Your task to perform on an android device: Search for hotels in Boston Image 0: 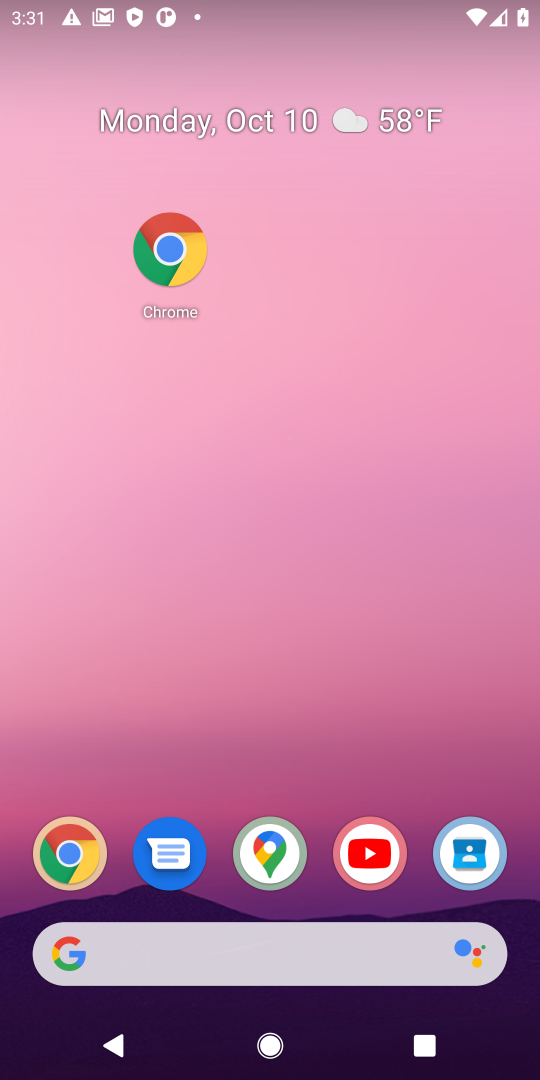
Step 0: click (66, 860)
Your task to perform on an android device: Search for hotels in Boston Image 1: 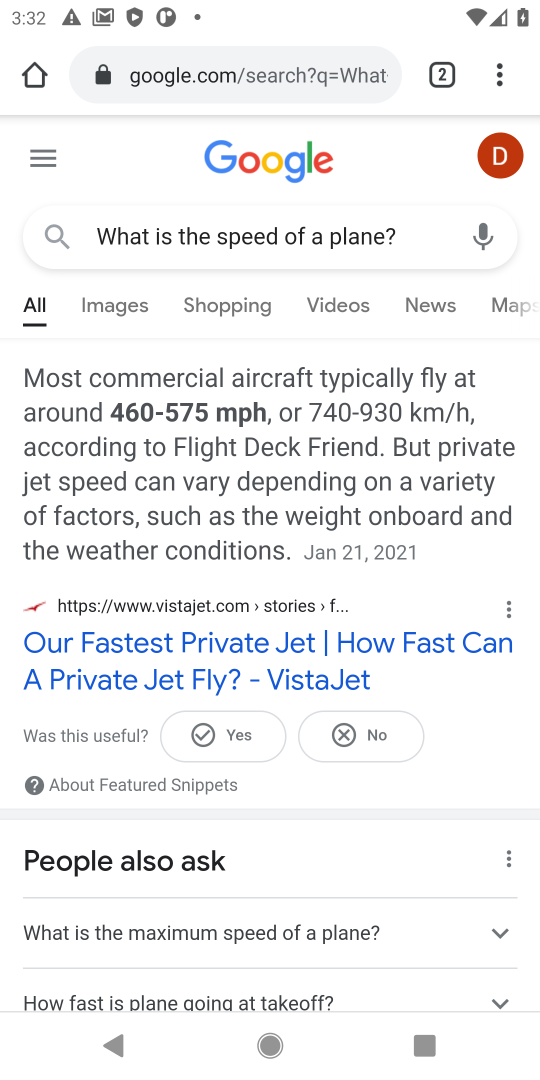
Step 1: click (300, 76)
Your task to perform on an android device: Search for hotels in Boston Image 2: 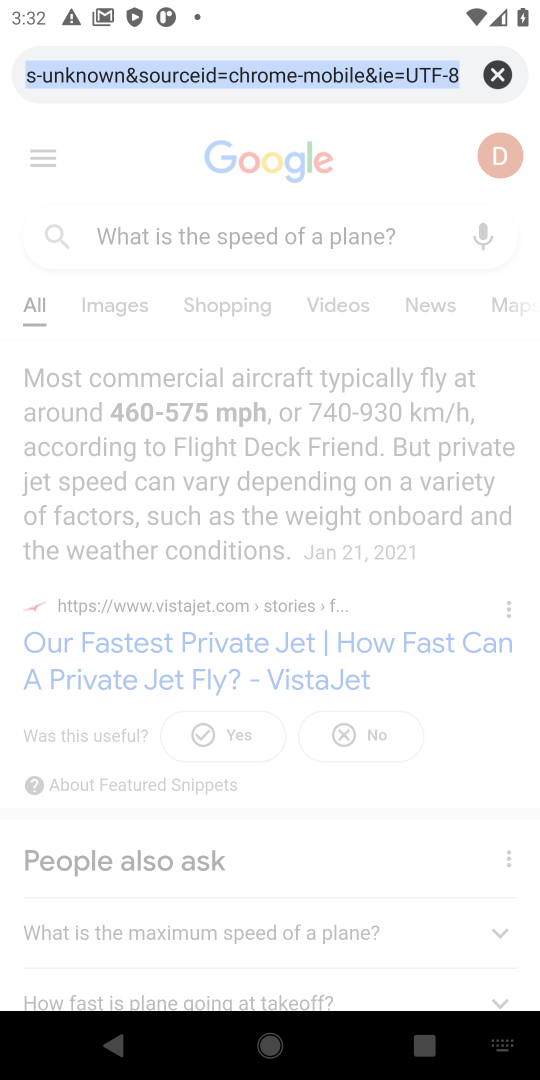
Step 2: type " hotels in Boston"
Your task to perform on an android device: Search for hotels in Boston Image 3: 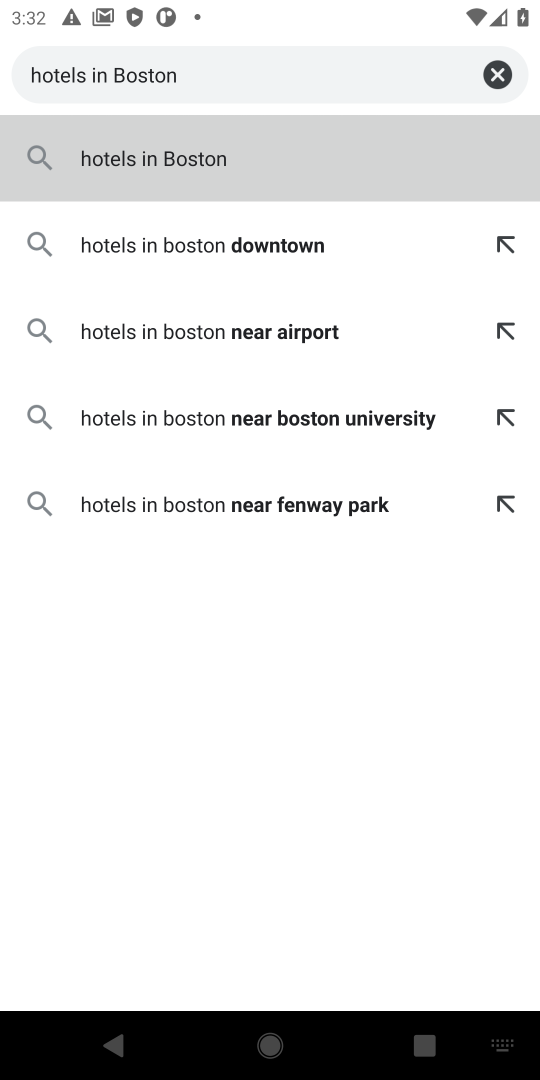
Step 3: click (303, 188)
Your task to perform on an android device: Search for hotels in Boston Image 4: 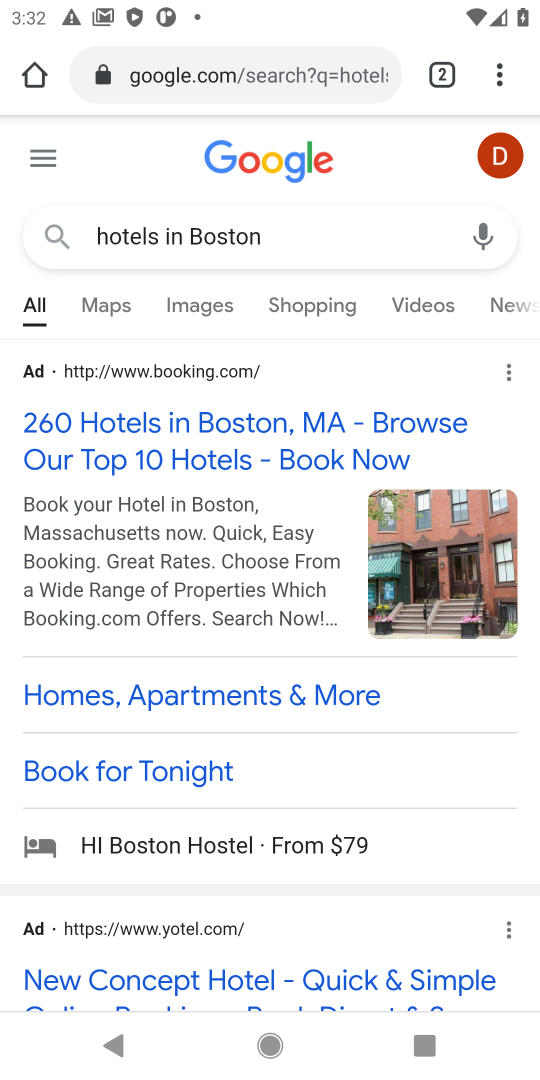
Step 4: click (291, 458)
Your task to perform on an android device: Search for hotels in Boston Image 5: 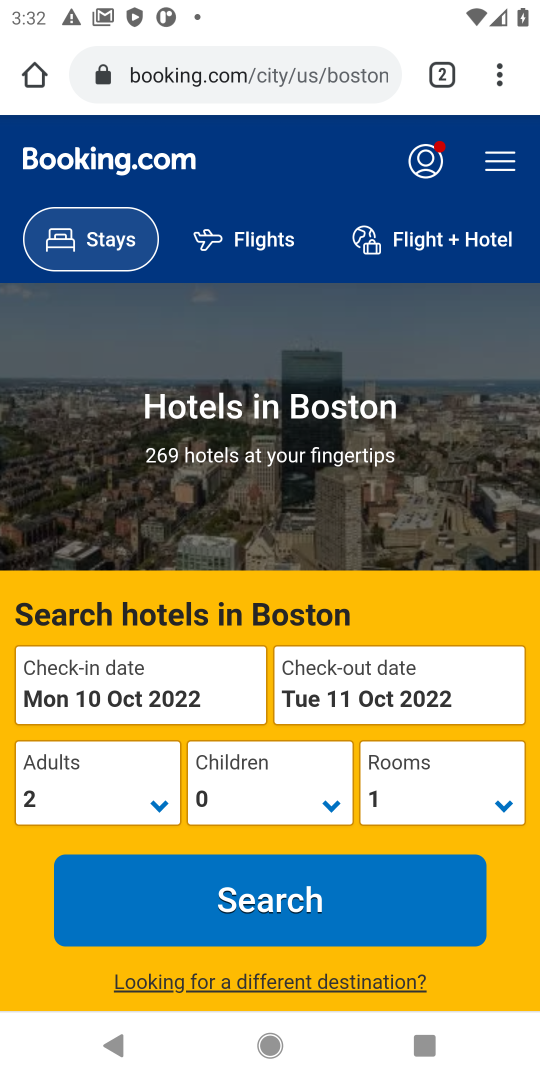
Step 5: task complete